Your task to perform on an android device: search for starred emails in the gmail app Image 0: 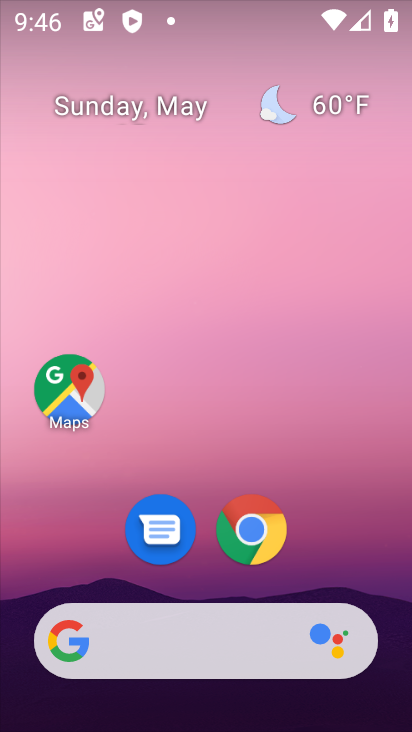
Step 0: drag from (387, 566) to (374, 199)
Your task to perform on an android device: search for starred emails in the gmail app Image 1: 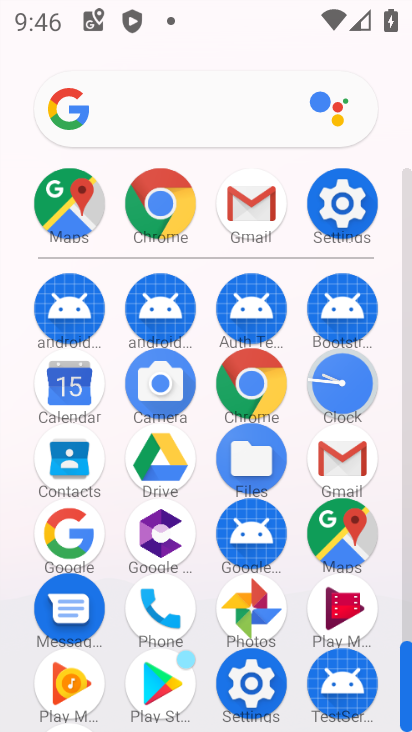
Step 1: click (336, 465)
Your task to perform on an android device: search for starred emails in the gmail app Image 2: 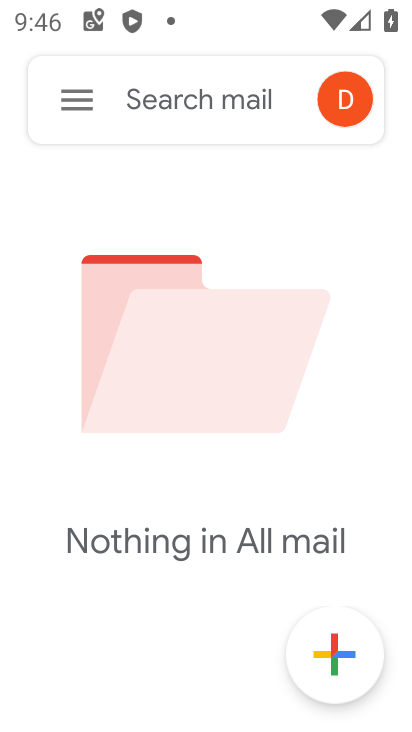
Step 2: click (66, 106)
Your task to perform on an android device: search for starred emails in the gmail app Image 3: 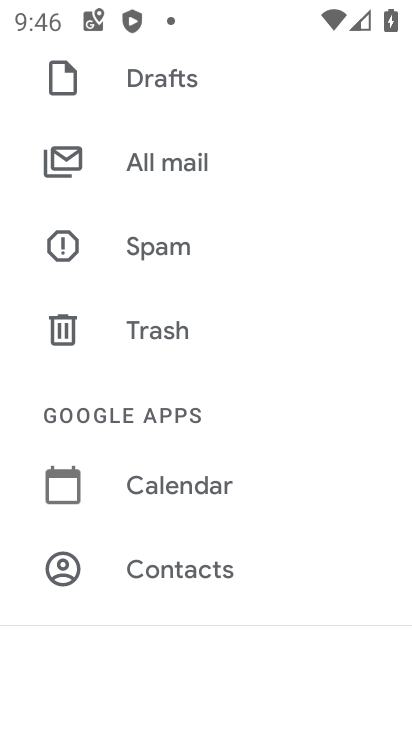
Step 3: drag from (339, 284) to (344, 415)
Your task to perform on an android device: search for starred emails in the gmail app Image 4: 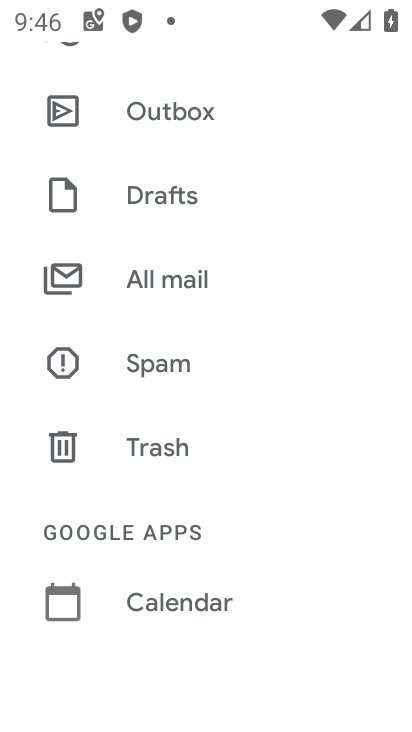
Step 4: drag from (345, 263) to (345, 387)
Your task to perform on an android device: search for starred emails in the gmail app Image 5: 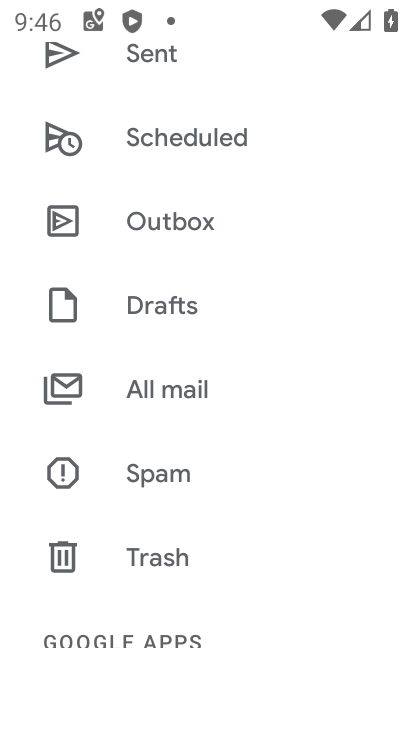
Step 5: drag from (328, 208) to (329, 315)
Your task to perform on an android device: search for starred emails in the gmail app Image 6: 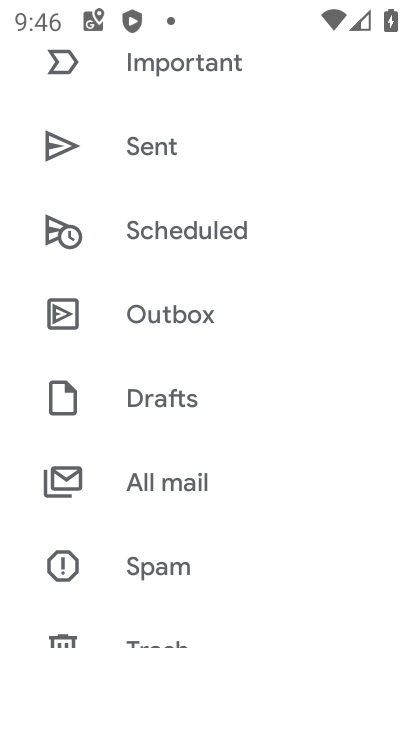
Step 6: drag from (328, 184) to (324, 317)
Your task to perform on an android device: search for starred emails in the gmail app Image 7: 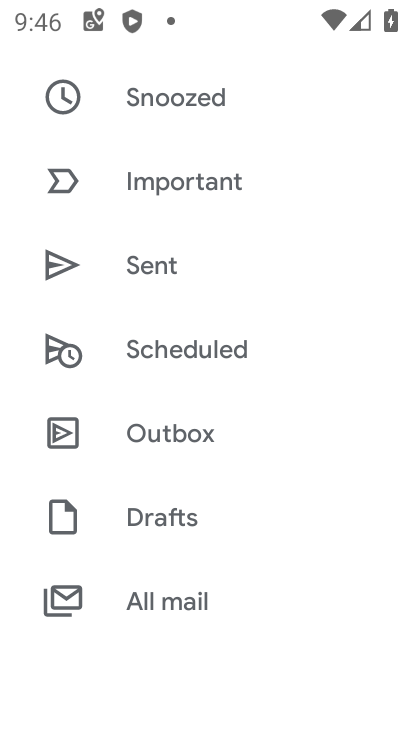
Step 7: drag from (310, 196) to (313, 318)
Your task to perform on an android device: search for starred emails in the gmail app Image 8: 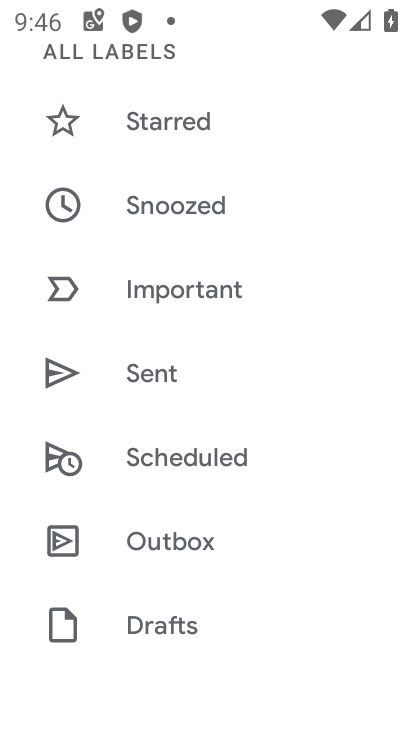
Step 8: drag from (315, 212) to (316, 332)
Your task to perform on an android device: search for starred emails in the gmail app Image 9: 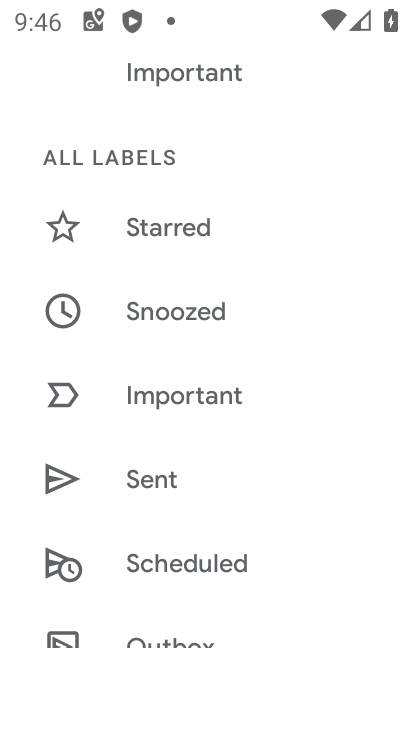
Step 9: click (191, 223)
Your task to perform on an android device: search for starred emails in the gmail app Image 10: 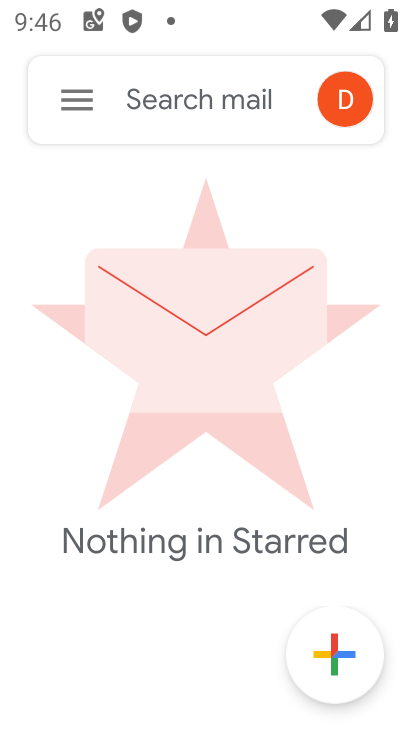
Step 10: task complete